Your task to perform on an android device: delete browsing data in the chrome app Image 0: 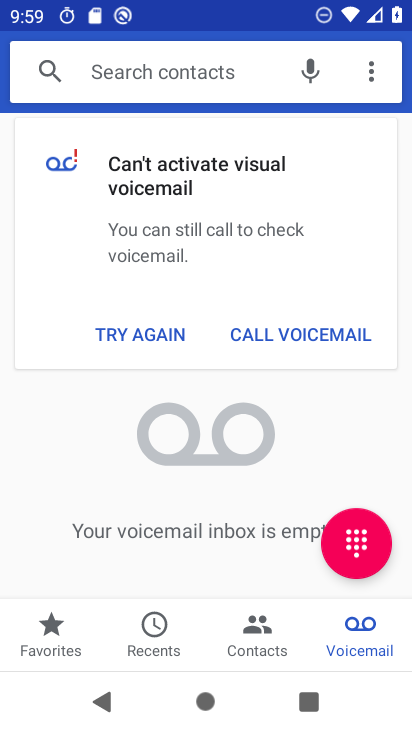
Step 0: press home button
Your task to perform on an android device: delete browsing data in the chrome app Image 1: 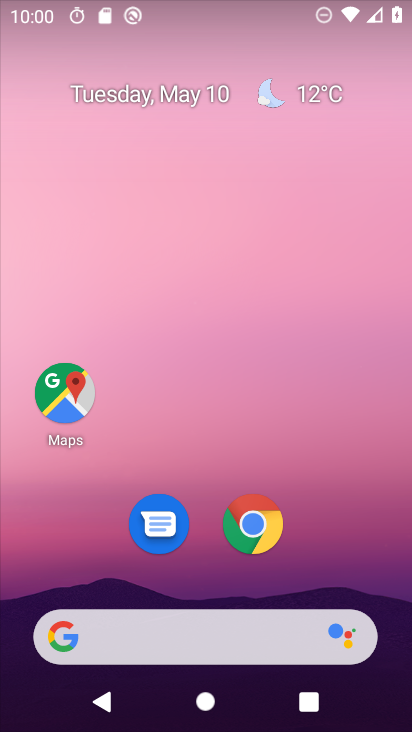
Step 1: click (265, 520)
Your task to perform on an android device: delete browsing data in the chrome app Image 2: 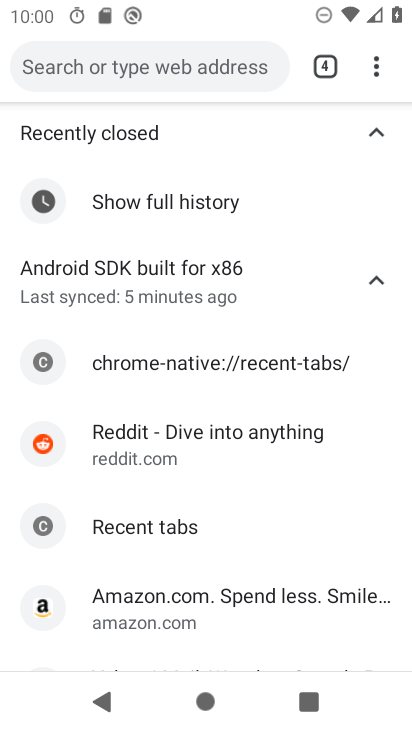
Step 2: click (376, 51)
Your task to perform on an android device: delete browsing data in the chrome app Image 3: 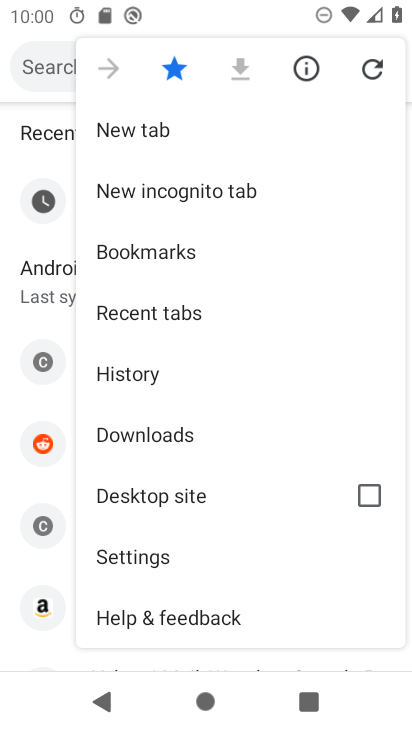
Step 3: click (143, 374)
Your task to perform on an android device: delete browsing data in the chrome app Image 4: 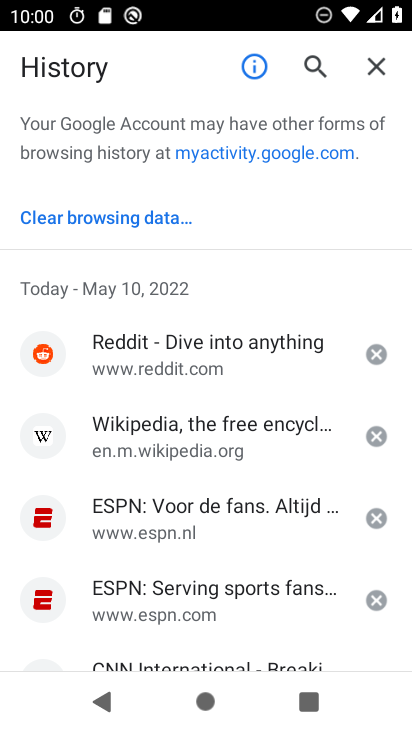
Step 4: click (161, 219)
Your task to perform on an android device: delete browsing data in the chrome app Image 5: 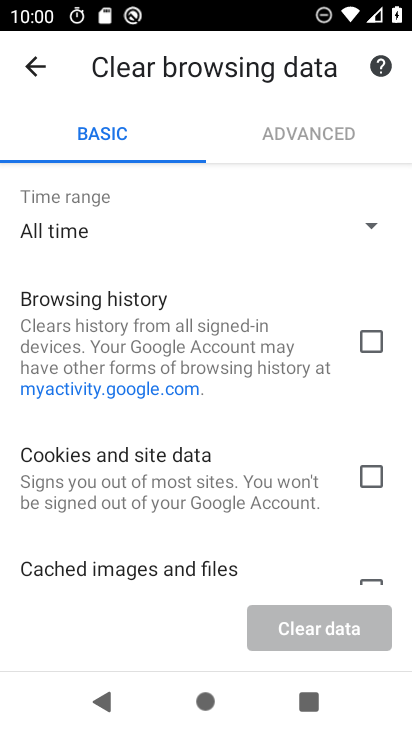
Step 5: click (367, 335)
Your task to perform on an android device: delete browsing data in the chrome app Image 6: 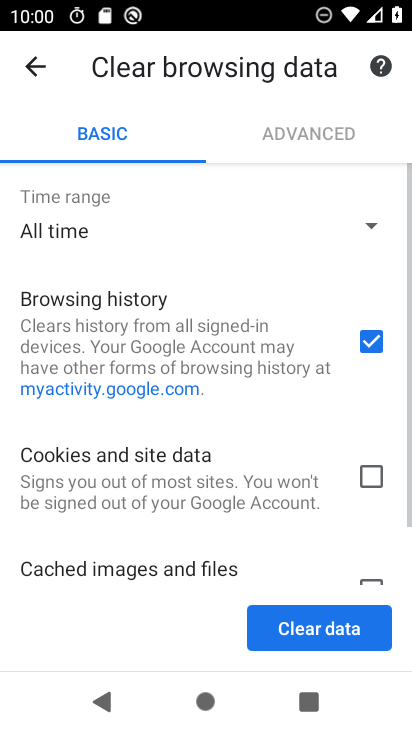
Step 6: click (372, 478)
Your task to perform on an android device: delete browsing data in the chrome app Image 7: 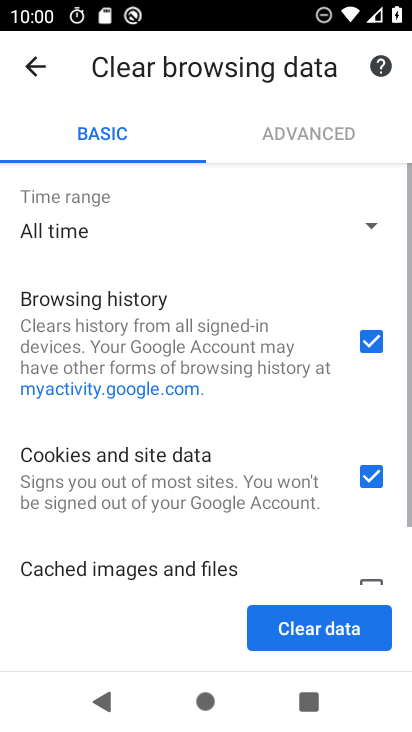
Step 7: drag from (258, 493) to (287, 331)
Your task to perform on an android device: delete browsing data in the chrome app Image 8: 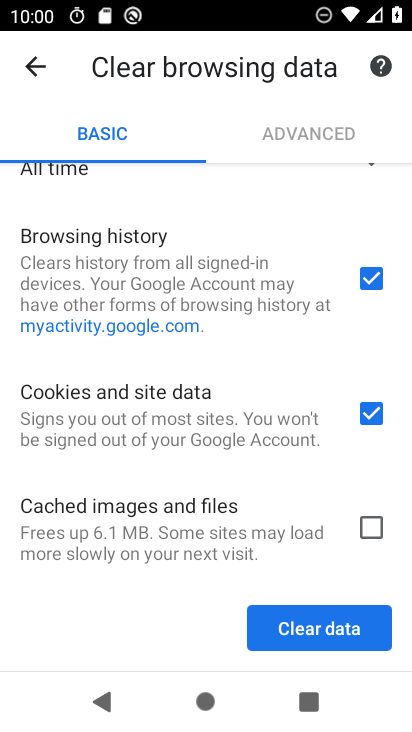
Step 8: click (371, 513)
Your task to perform on an android device: delete browsing data in the chrome app Image 9: 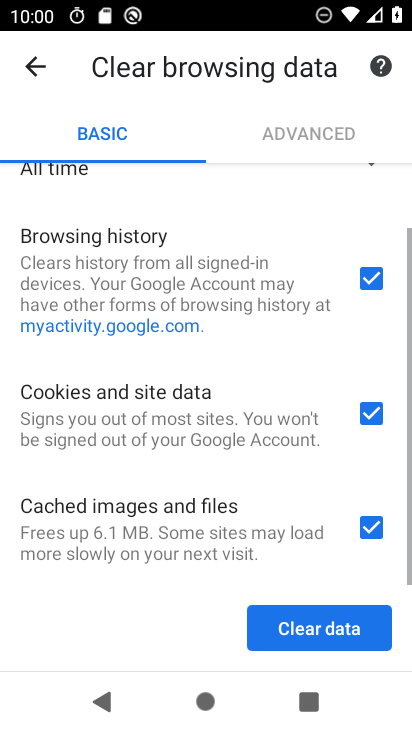
Step 9: click (352, 618)
Your task to perform on an android device: delete browsing data in the chrome app Image 10: 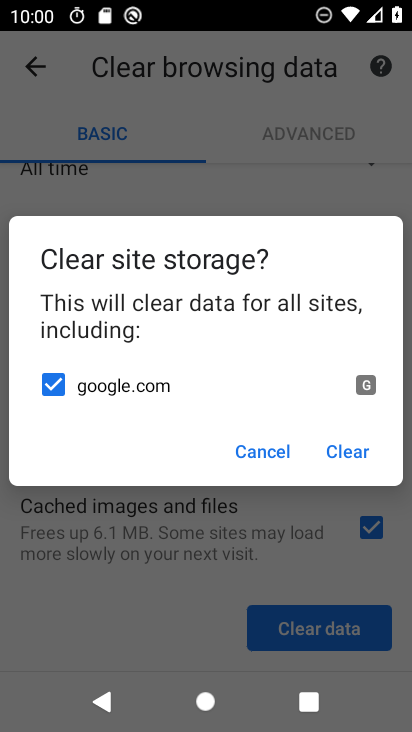
Step 10: click (345, 450)
Your task to perform on an android device: delete browsing data in the chrome app Image 11: 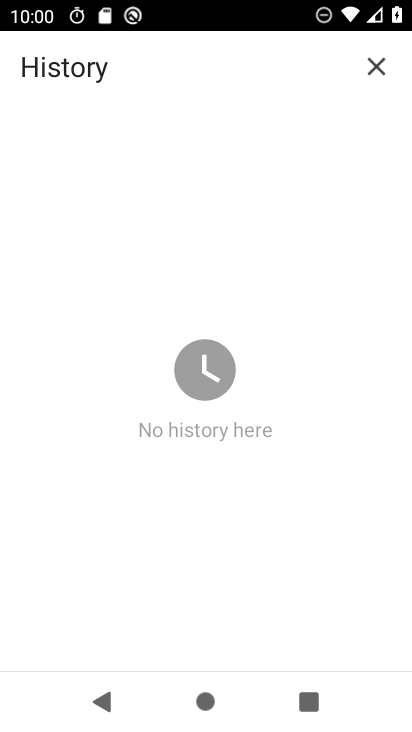
Step 11: task complete